Your task to perform on an android device: toggle location history Image 0: 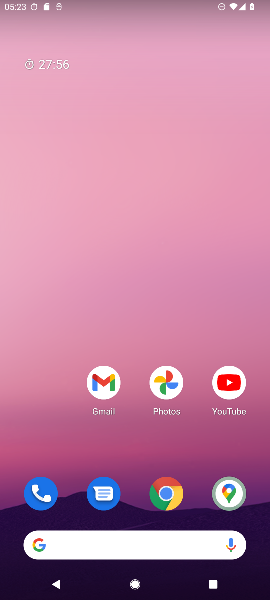
Step 0: press home button
Your task to perform on an android device: toggle location history Image 1: 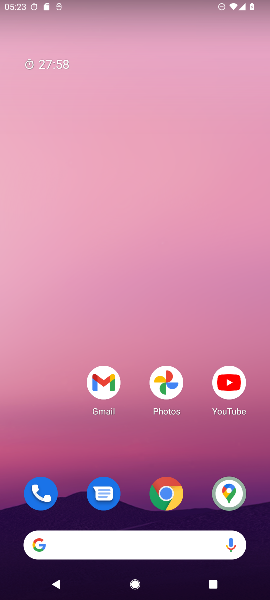
Step 1: drag from (58, 453) to (62, 189)
Your task to perform on an android device: toggle location history Image 2: 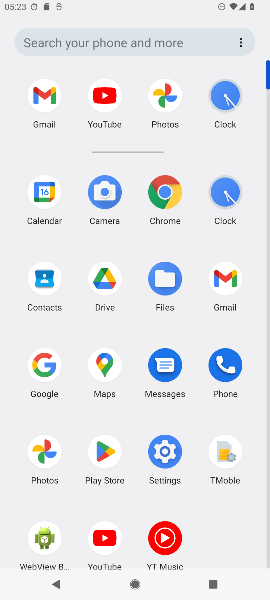
Step 2: click (163, 455)
Your task to perform on an android device: toggle location history Image 3: 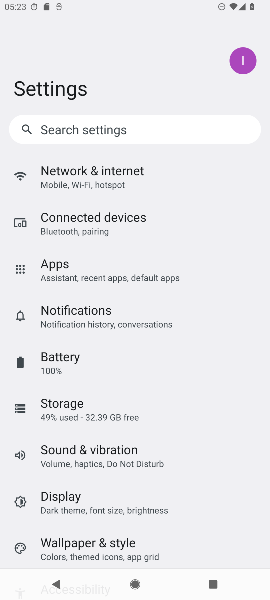
Step 3: drag from (231, 440) to (235, 347)
Your task to perform on an android device: toggle location history Image 4: 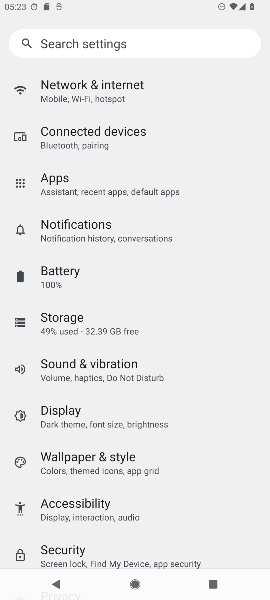
Step 4: drag from (224, 432) to (241, 349)
Your task to perform on an android device: toggle location history Image 5: 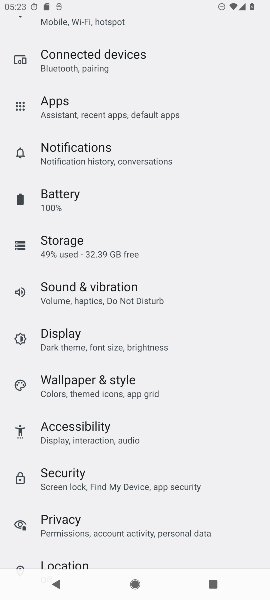
Step 5: drag from (233, 439) to (231, 368)
Your task to perform on an android device: toggle location history Image 6: 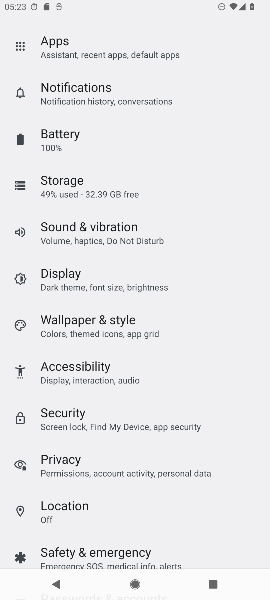
Step 6: drag from (215, 442) to (231, 327)
Your task to perform on an android device: toggle location history Image 7: 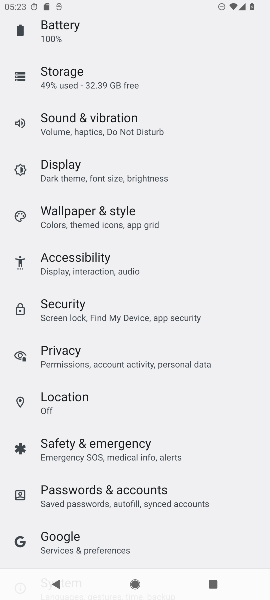
Step 7: drag from (227, 410) to (236, 179)
Your task to perform on an android device: toggle location history Image 8: 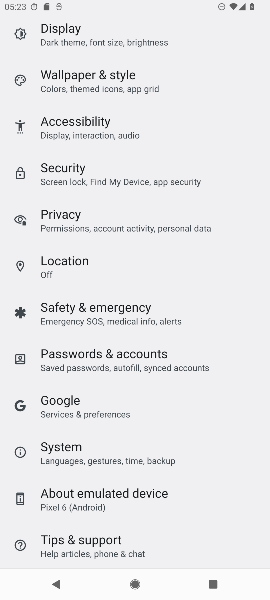
Step 8: click (151, 263)
Your task to perform on an android device: toggle location history Image 9: 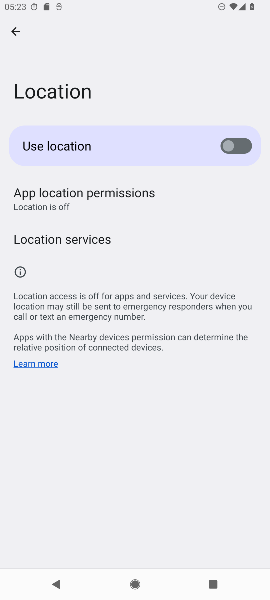
Step 9: click (113, 239)
Your task to perform on an android device: toggle location history Image 10: 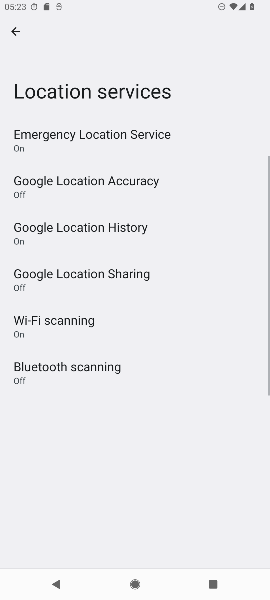
Step 10: click (113, 234)
Your task to perform on an android device: toggle location history Image 11: 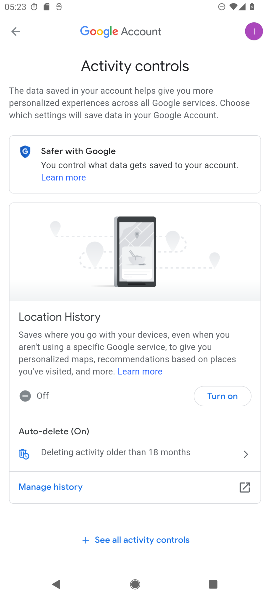
Step 11: click (223, 392)
Your task to perform on an android device: toggle location history Image 12: 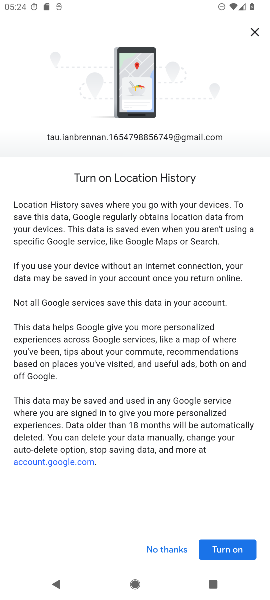
Step 12: click (237, 541)
Your task to perform on an android device: toggle location history Image 13: 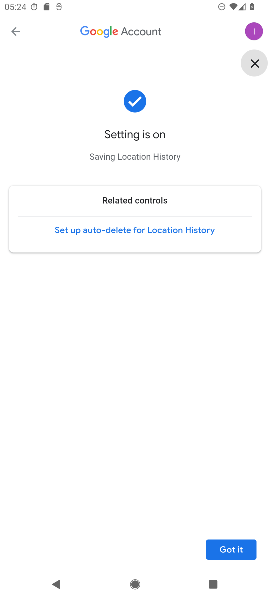
Step 13: task complete